Your task to perform on an android device: turn off airplane mode Image 0: 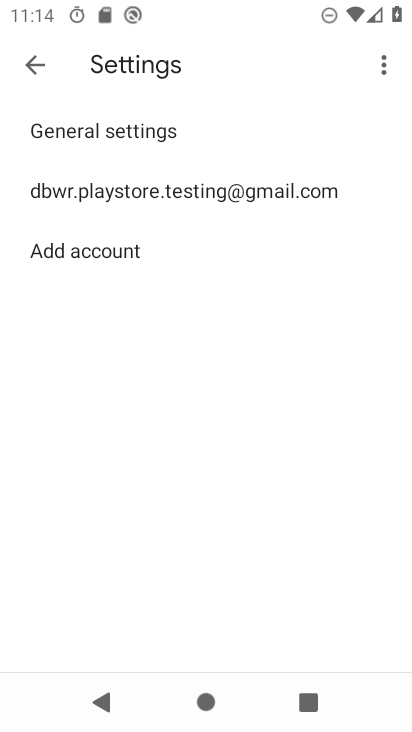
Step 0: press home button
Your task to perform on an android device: turn off airplane mode Image 1: 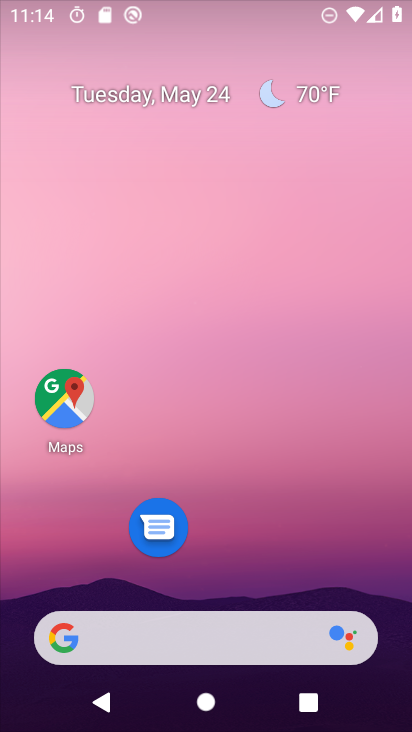
Step 1: drag from (226, 586) to (217, 147)
Your task to perform on an android device: turn off airplane mode Image 2: 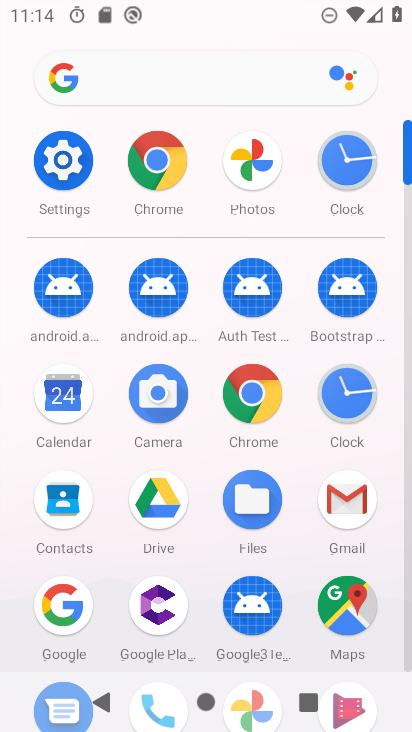
Step 2: click (73, 155)
Your task to perform on an android device: turn off airplane mode Image 3: 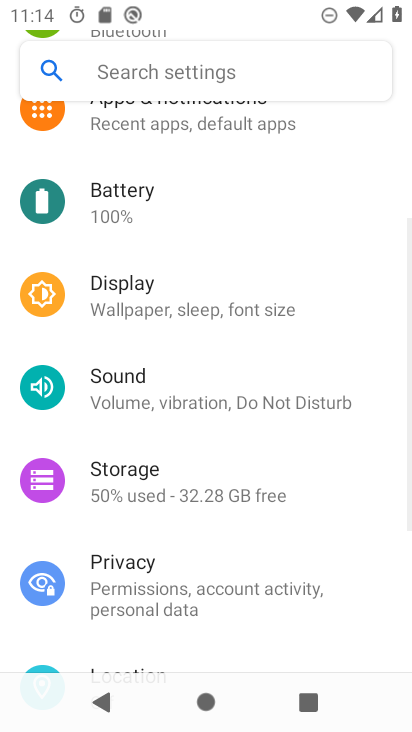
Step 3: drag from (168, 177) to (134, 510)
Your task to perform on an android device: turn off airplane mode Image 4: 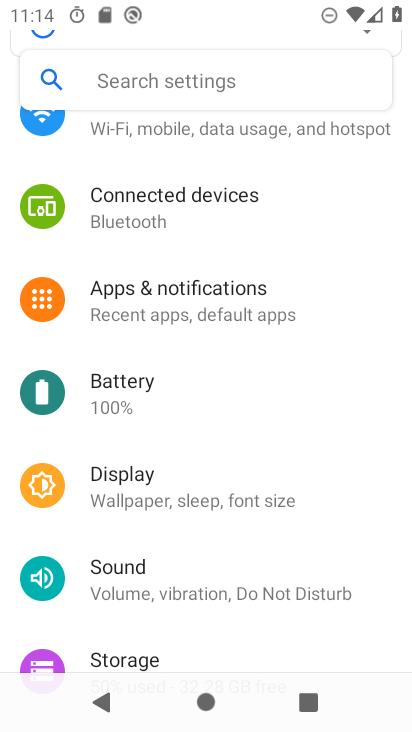
Step 4: drag from (201, 154) to (219, 353)
Your task to perform on an android device: turn off airplane mode Image 5: 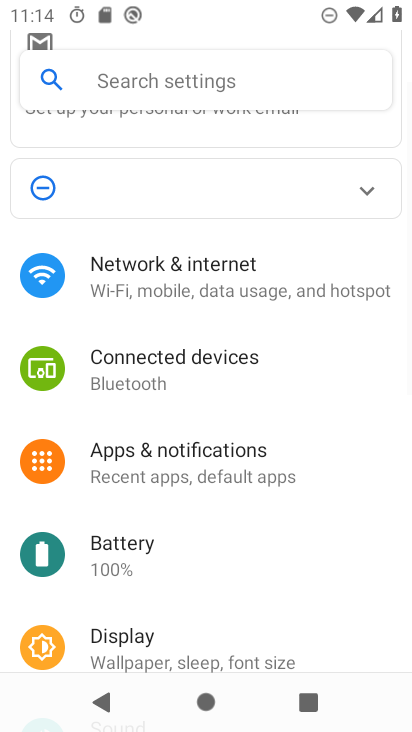
Step 5: click (188, 266)
Your task to perform on an android device: turn off airplane mode Image 6: 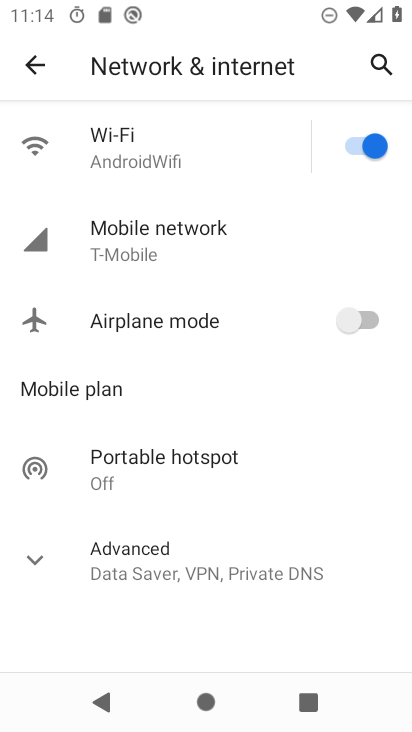
Step 6: task complete